Your task to perform on an android device: set an alarm Image 0: 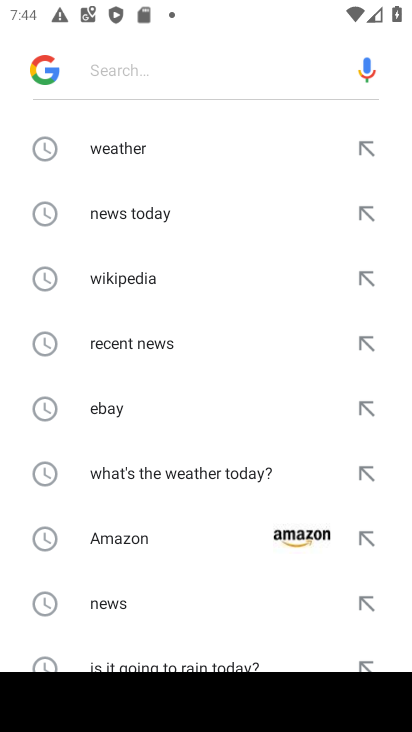
Step 0: press home button
Your task to perform on an android device: set an alarm Image 1: 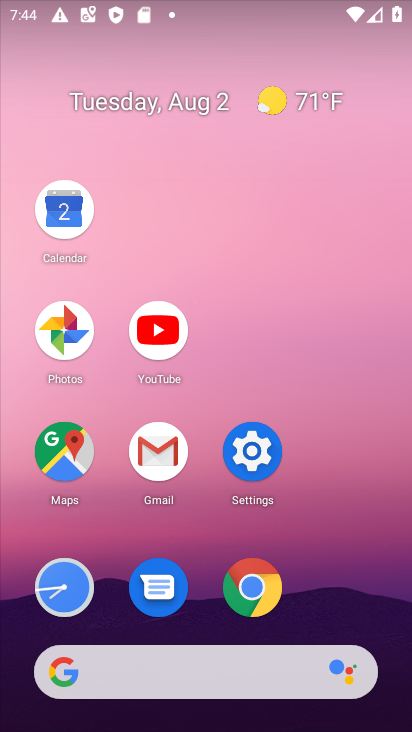
Step 1: click (50, 591)
Your task to perform on an android device: set an alarm Image 2: 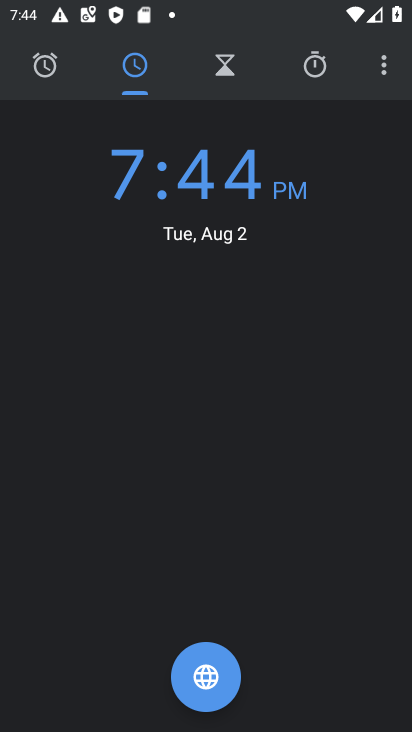
Step 2: click (39, 64)
Your task to perform on an android device: set an alarm Image 3: 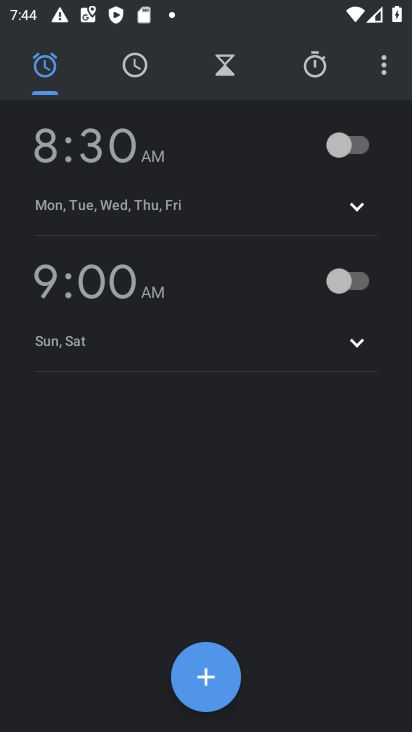
Step 3: click (210, 672)
Your task to perform on an android device: set an alarm Image 4: 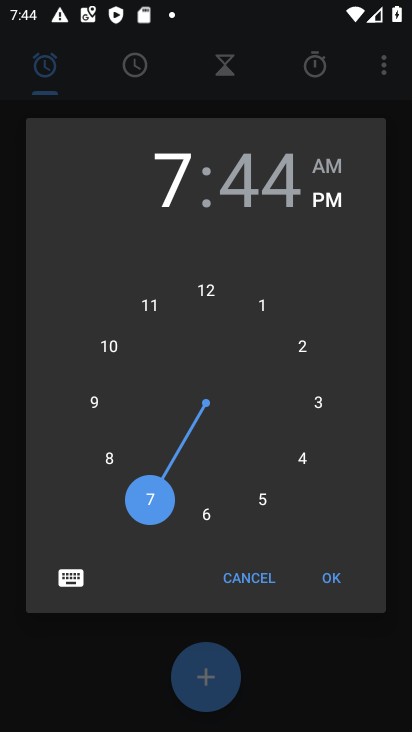
Step 4: click (340, 573)
Your task to perform on an android device: set an alarm Image 5: 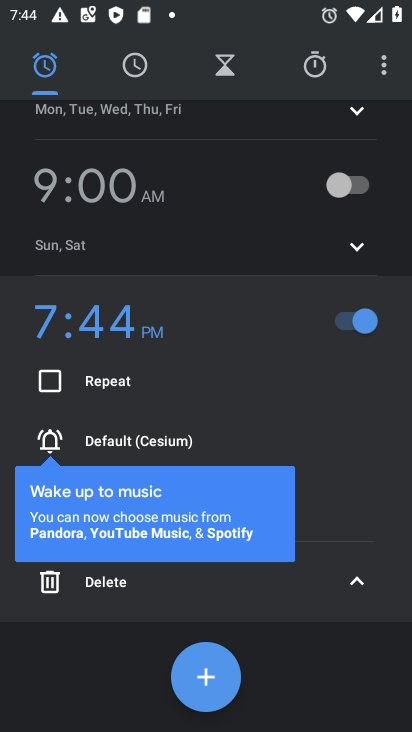
Step 5: task complete